Your task to perform on an android device: move an email to a new category in the gmail app Image 0: 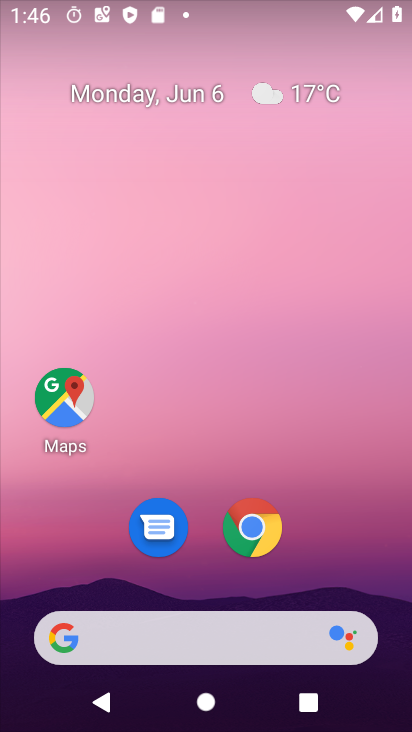
Step 0: drag from (256, 720) to (248, 83)
Your task to perform on an android device: move an email to a new category in the gmail app Image 1: 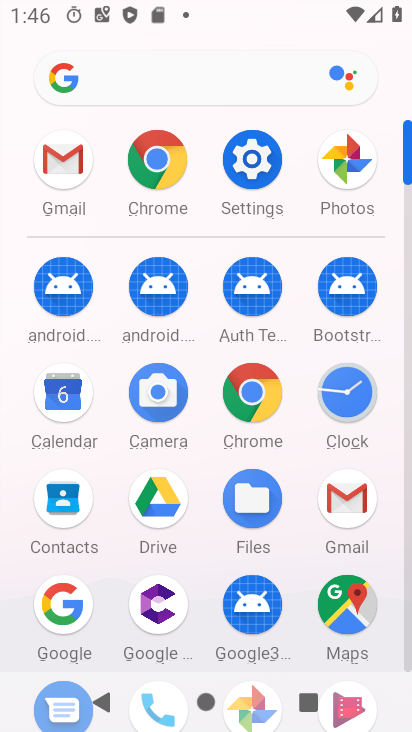
Step 1: click (341, 499)
Your task to perform on an android device: move an email to a new category in the gmail app Image 2: 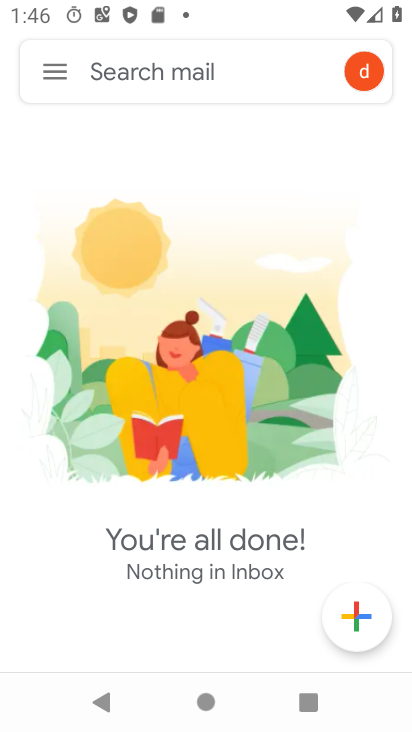
Step 2: task complete